Your task to perform on an android device: choose inbox layout in the gmail app Image 0: 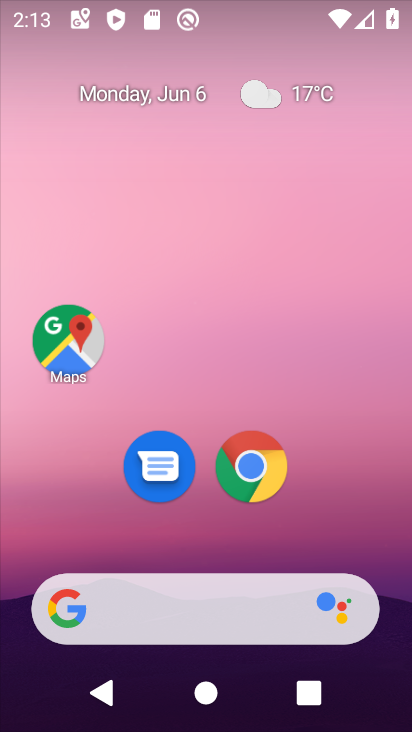
Step 0: drag from (198, 532) to (200, 0)
Your task to perform on an android device: choose inbox layout in the gmail app Image 1: 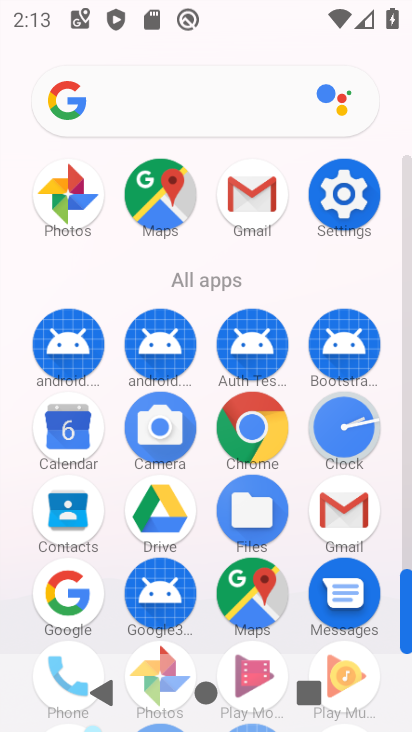
Step 1: click (252, 200)
Your task to perform on an android device: choose inbox layout in the gmail app Image 2: 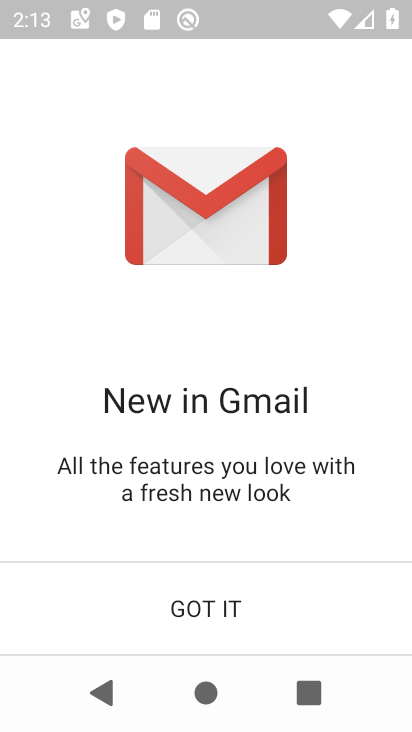
Step 2: click (208, 619)
Your task to perform on an android device: choose inbox layout in the gmail app Image 3: 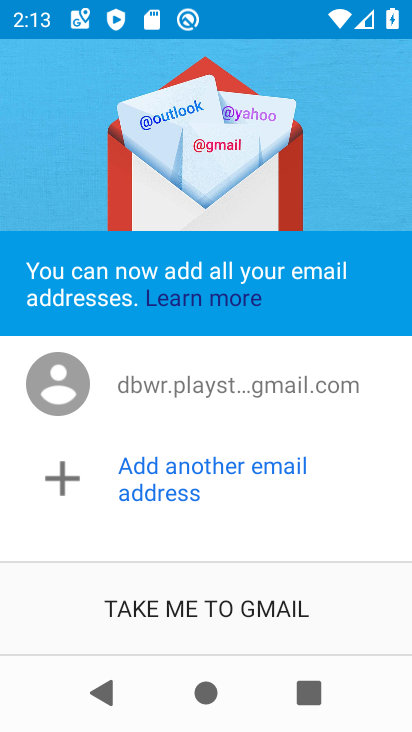
Step 3: click (224, 598)
Your task to perform on an android device: choose inbox layout in the gmail app Image 4: 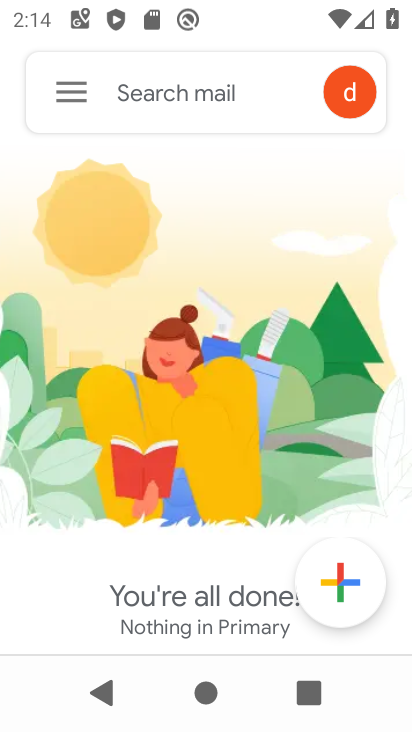
Step 4: click (78, 100)
Your task to perform on an android device: choose inbox layout in the gmail app Image 5: 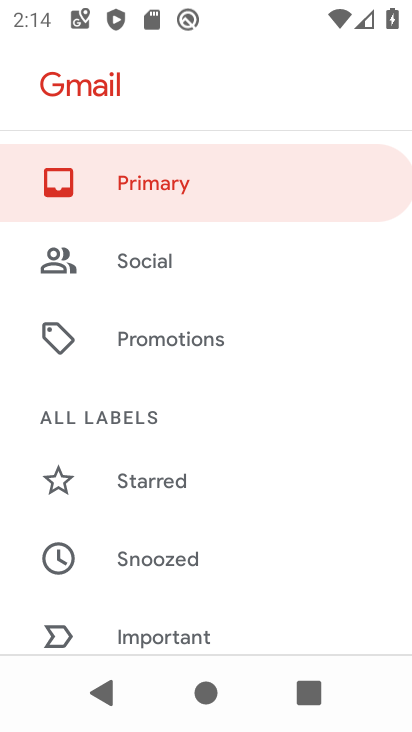
Step 5: drag from (168, 602) to (176, 257)
Your task to perform on an android device: choose inbox layout in the gmail app Image 6: 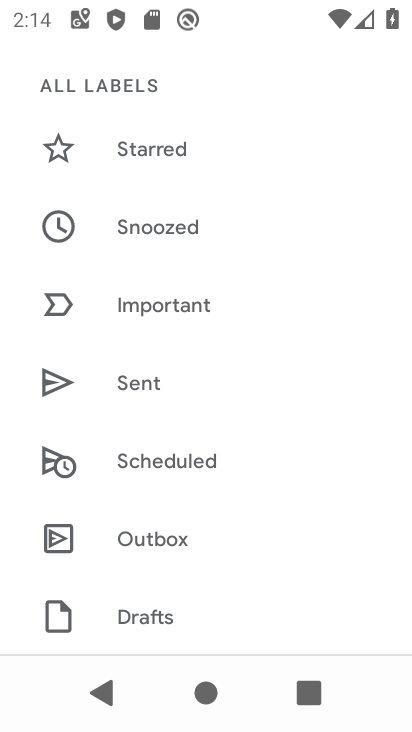
Step 6: drag from (160, 557) to (189, 277)
Your task to perform on an android device: choose inbox layout in the gmail app Image 7: 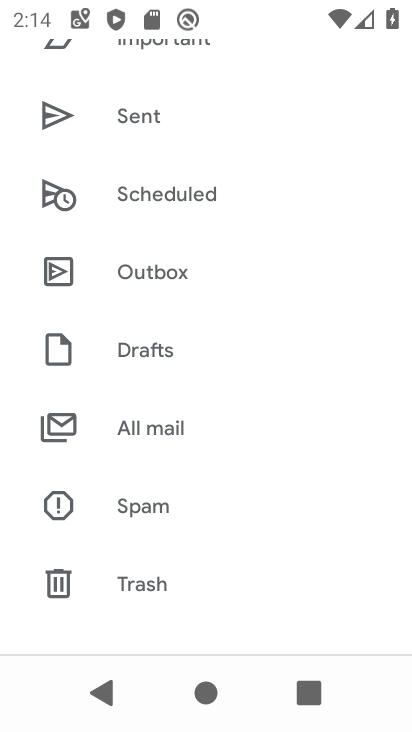
Step 7: drag from (147, 558) to (146, 381)
Your task to perform on an android device: choose inbox layout in the gmail app Image 8: 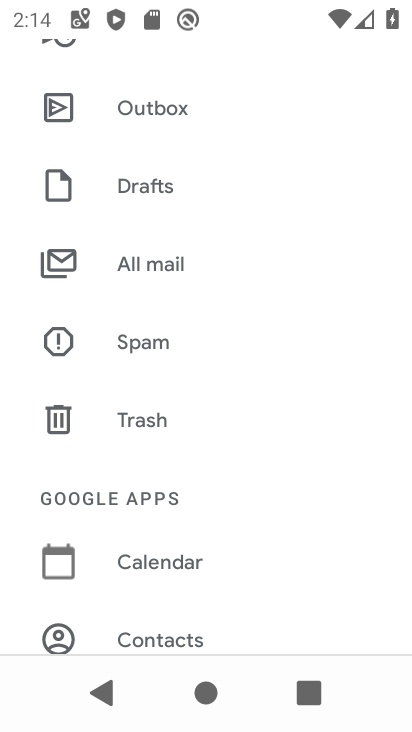
Step 8: drag from (218, 598) to (222, 242)
Your task to perform on an android device: choose inbox layout in the gmail app Image 9: 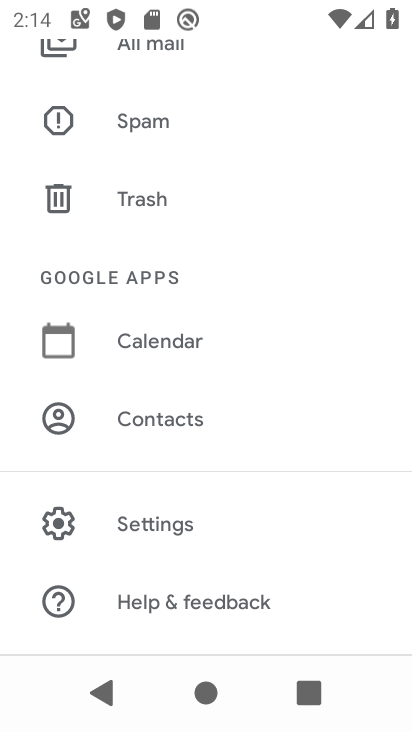
Step 9: click (179, 526)
Your task to perform on an android device: choose inbox layout in the gmail app Image 10: 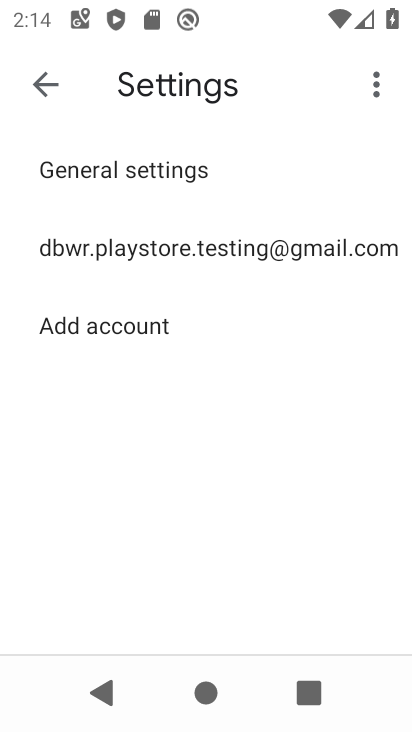
Step 10: click (152, 258)
Your task to perform on an android device: choose inbox layout in the gmail app Image 11: 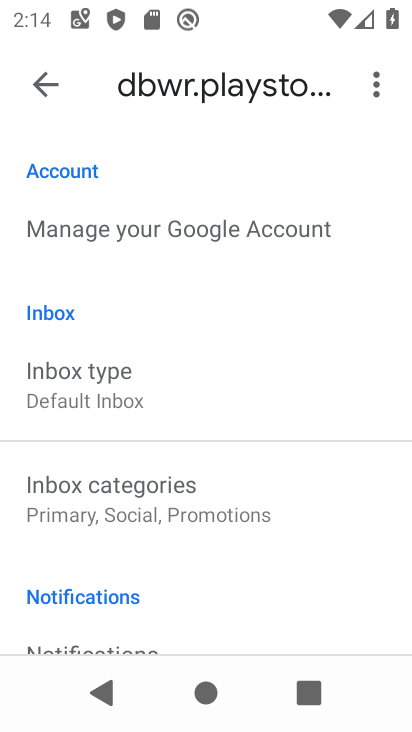
Step 11: drag from (149, 540) to (193, 223)
Your task to perform on an android device: choose inbox layout in the gmail app Image 12: 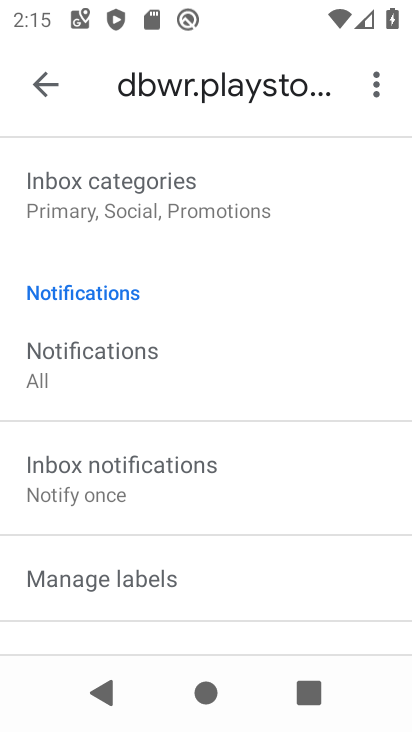
Step 12: drag from (194, 484) to (186, 218)
Your task to perform on an android device: choose inbox layout in the gmail app Image 13: 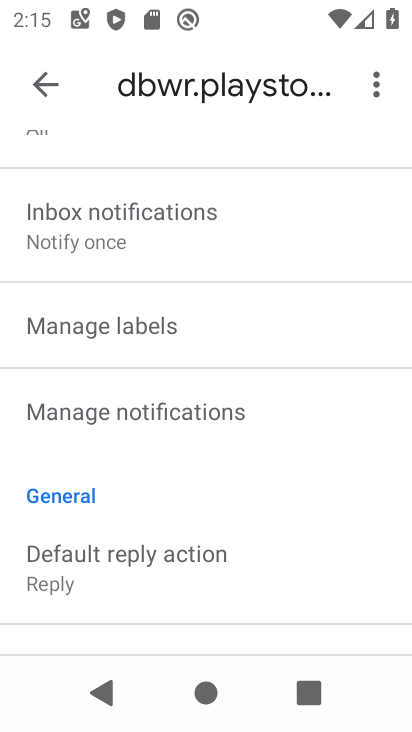
Step 13: drag from (172, 231) to (170, 523)
Your task to perform on an android device: choose inbox layout in the gmail app Image 14: 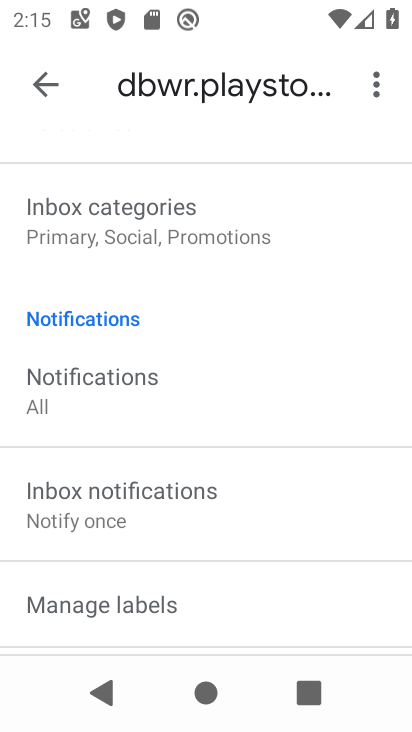
Step 14: drag from (118, 274) to (168, 619)
Your task to perform on an android device: choose inbox layout in the gmail app Image 15: 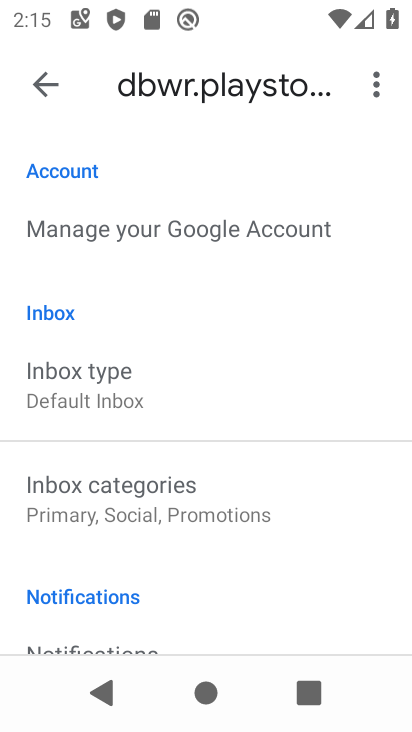
Step 15: click (89, 399)
Your task to perform on an android device: choose inbox layout in the gmail app Image 16: 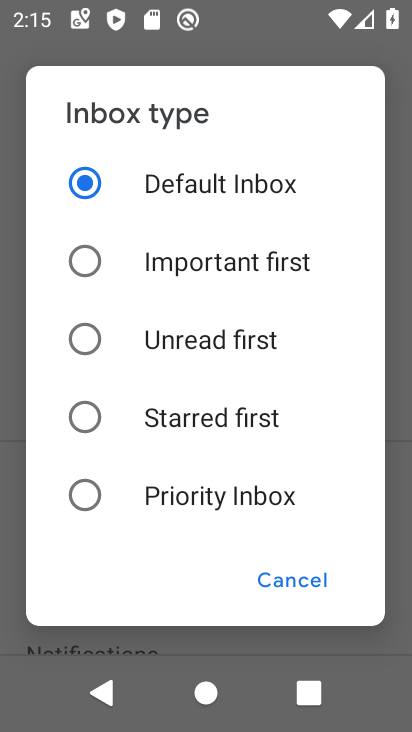
Step 16: click (83, 267)
Your task to perform on an android device: choose inbox layout in the gmail app Image 17: 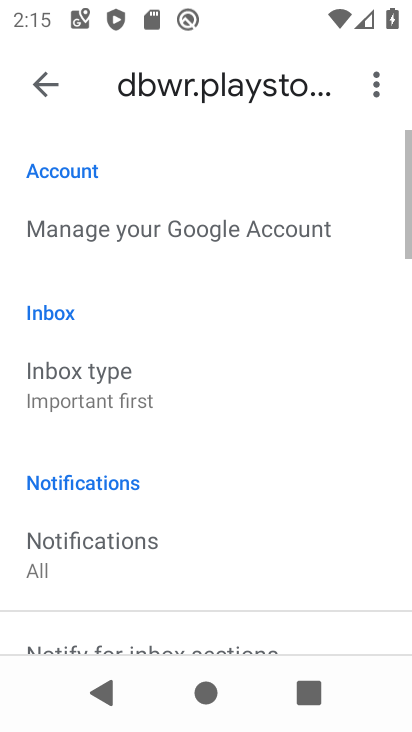
Step 17: task complete